Your task to perform on an android device: check battery use Image 0: 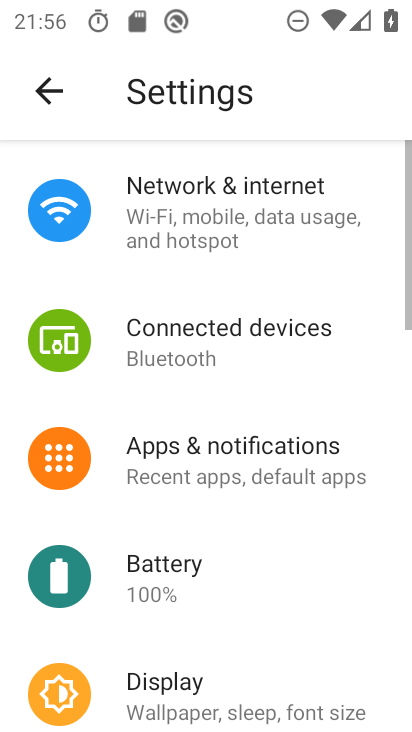
Step 0: press home button
Your task to perform on an android device: check battery use Image 1: 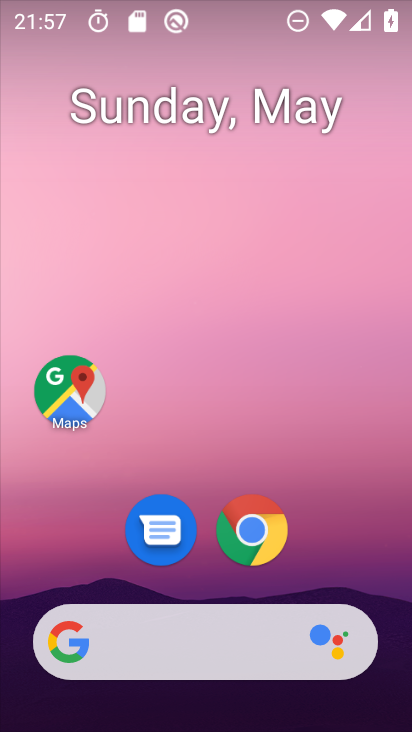
Step 1: drag from (184, 502) to (125, 272)
Your task to perform on an android device: check battery use Image 2: 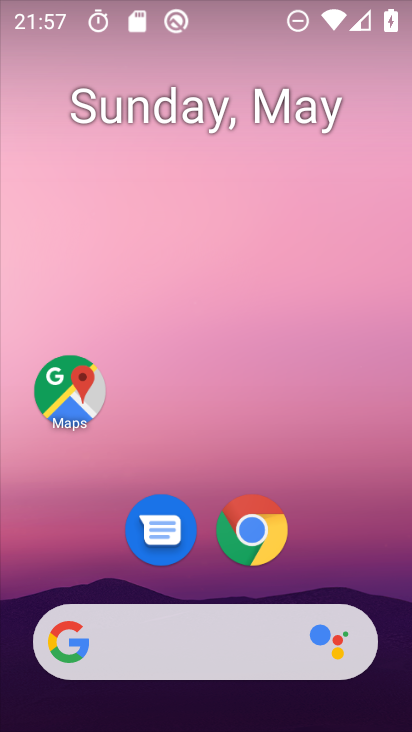
Step 2: drag from (196, 659) to (88, 5)
Your task to perform on an android device: check battery use Image 3: 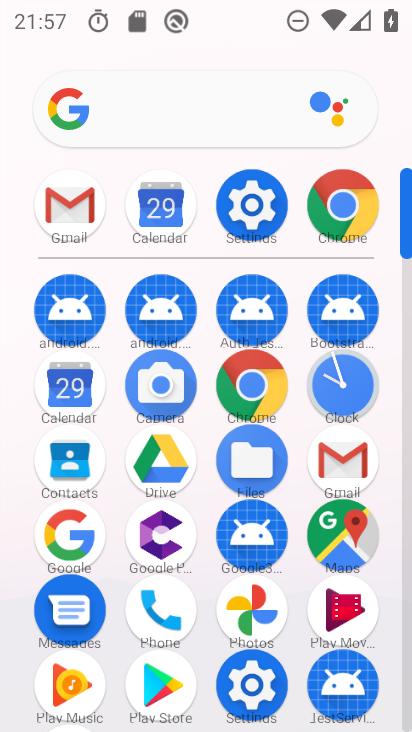
Step 3: click (245, 217)
Your task to perform on an android device: check battery use Image 4: 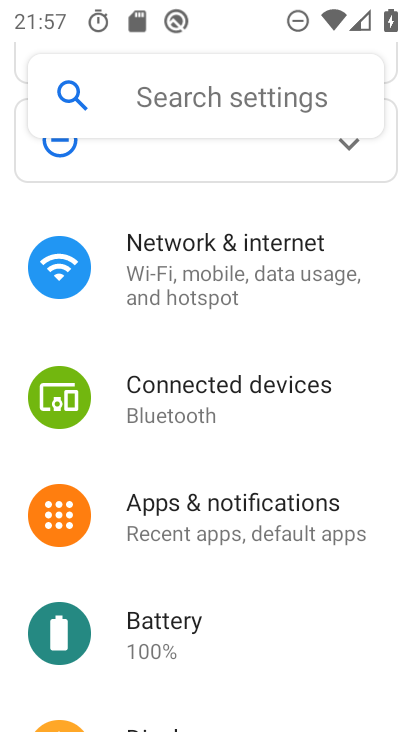
Step 4: click (187, 630)
Your task to perform on an android device: check battery use Image 5: 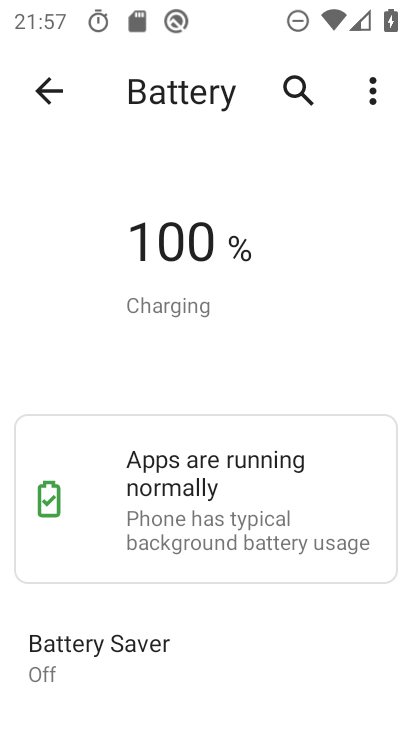
Step 5: task complete